Your task to perform on an android device: What's on my calendar tomorrow? Image 0: 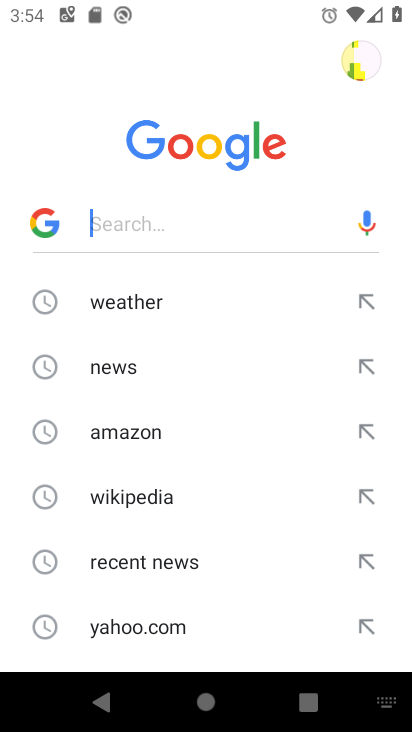
Step 0: press back button
Your task to perform on an android device: What's on my calendar tomorrow? Image 1: 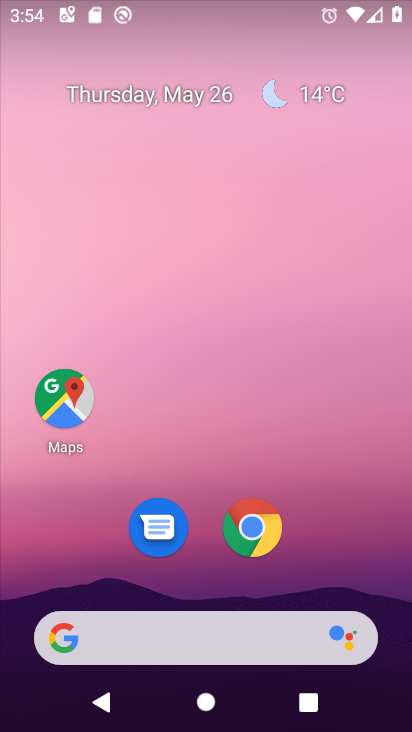
Step 1: drag from (350, 578) to (239, 228)
Your task to perform on an android device: What's on my calendar tomorrow? Image 2: 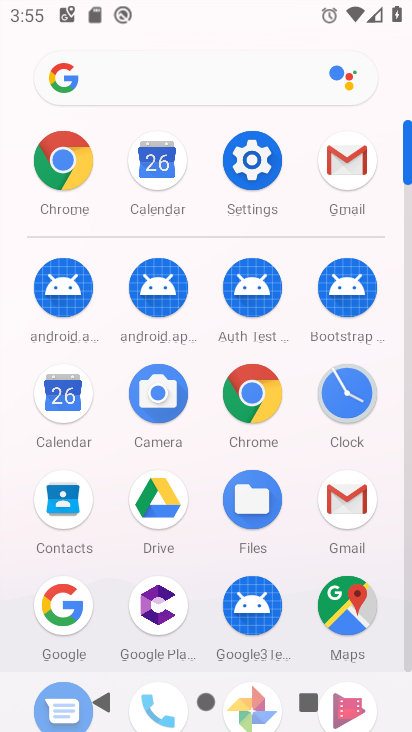
Step 2: click (62, 396)
Your task to perform on an android device: What's on my calendar tomorrow? Image 3: 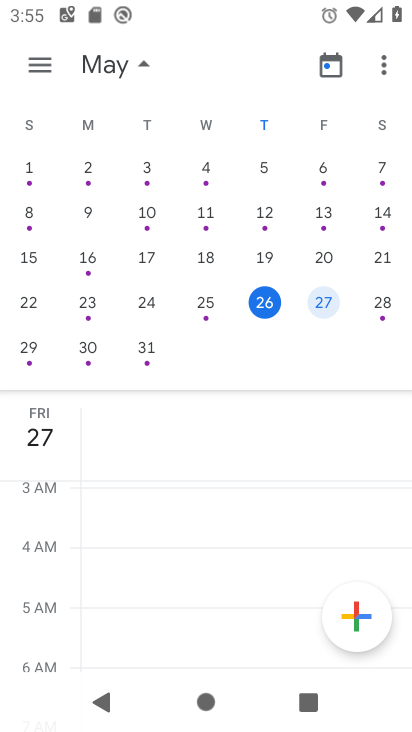
Step 3: click (324, 306)
Your task to perform on an android device: What's on my calendar tomorrow? Image 4: 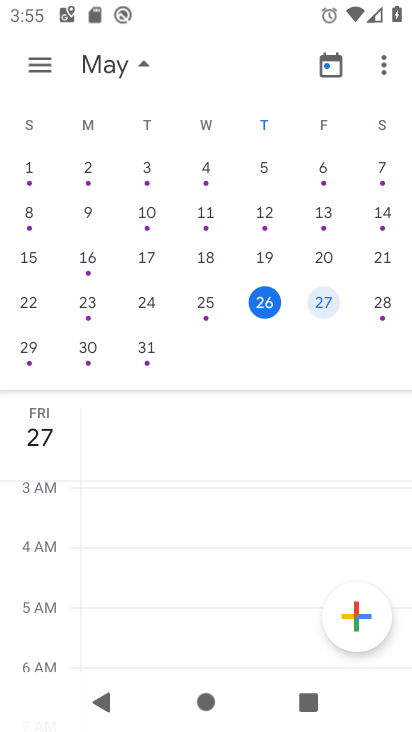
Step 4: click (138, 64)
Your task to perform on an android device: What's on my calendar tomorrow? Image 5: 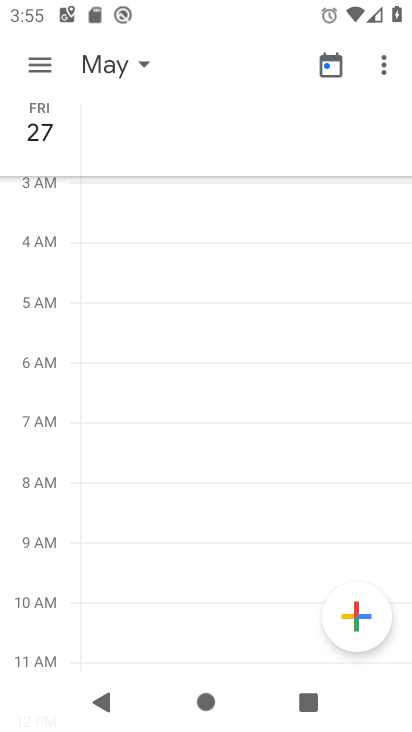
Step 5: task complete